Your task to perform on an android device: Open Android settings Image 0: 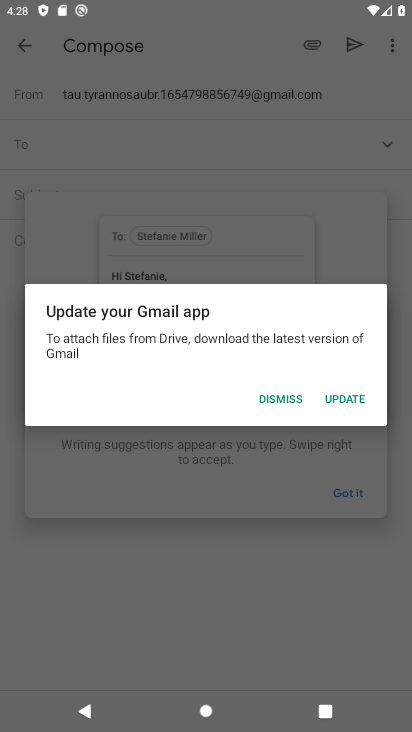
Step 0: click (272, 398)
Your task to perform on an android device: Open Android settings Image 1: 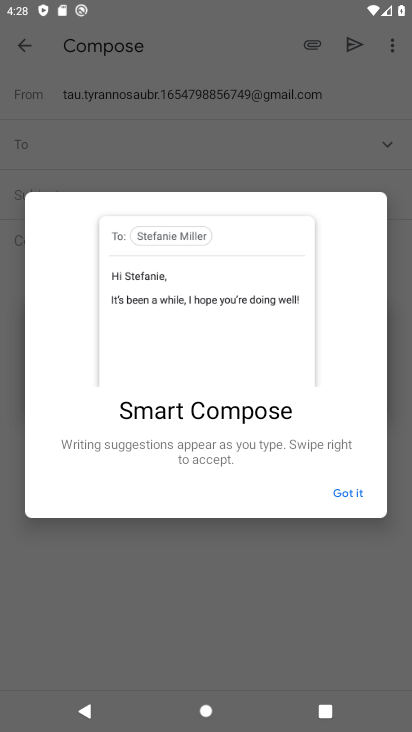
Step 1: click (347, 489)
Your task to perform on an android device: Open Android settings Image 2: 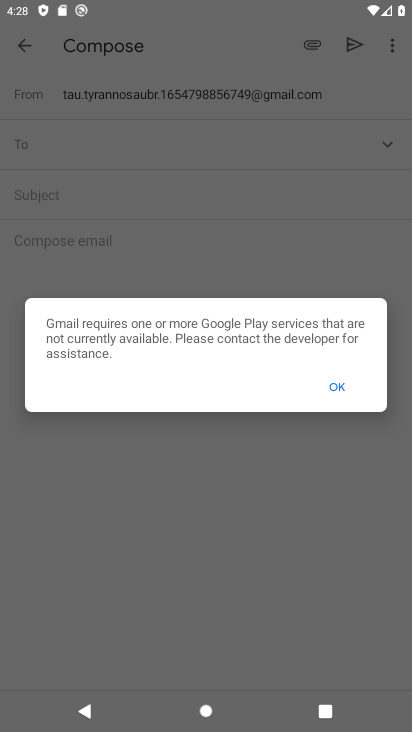
Step 2: click (338, 395)
Your task to perform on an android device: Open Android settings Image 3: 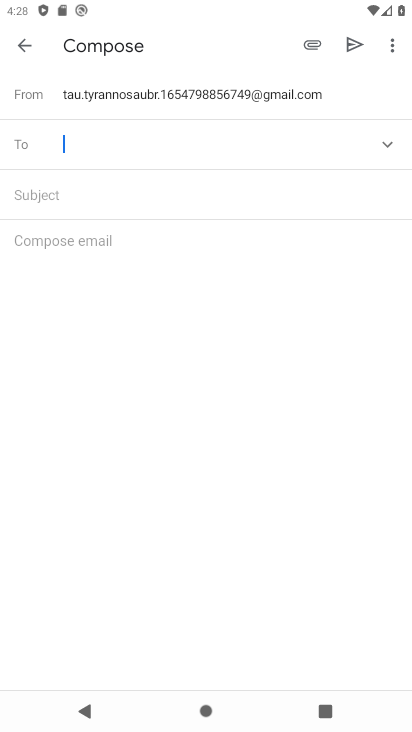
Step 3: press home button
Your task to perform on an android device: Open Android settings Image 4: 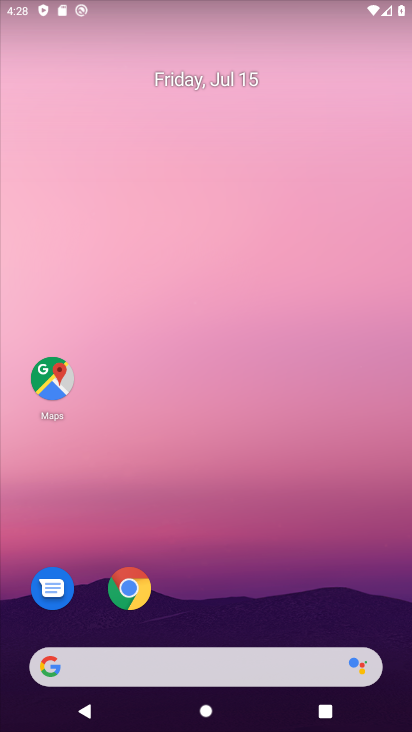
Step 4: drag from (10, 620) to (180, 142)
Your task to perform on an android device: Open Android settings Image 5: 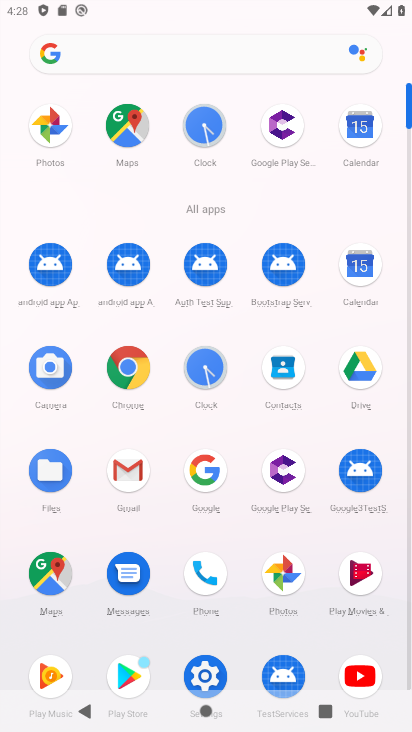
Step 5: click (211, 664)
Your task to perform on an android device: Open Android settings Image 6: 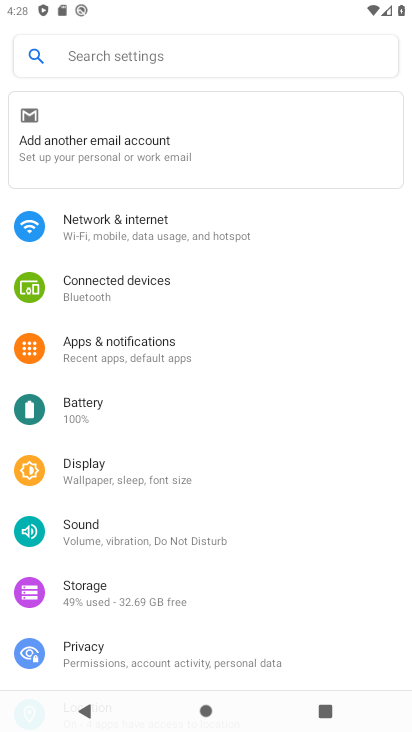
Step 6: task complete